Your task to perform on an android device: Open settings Image 0: 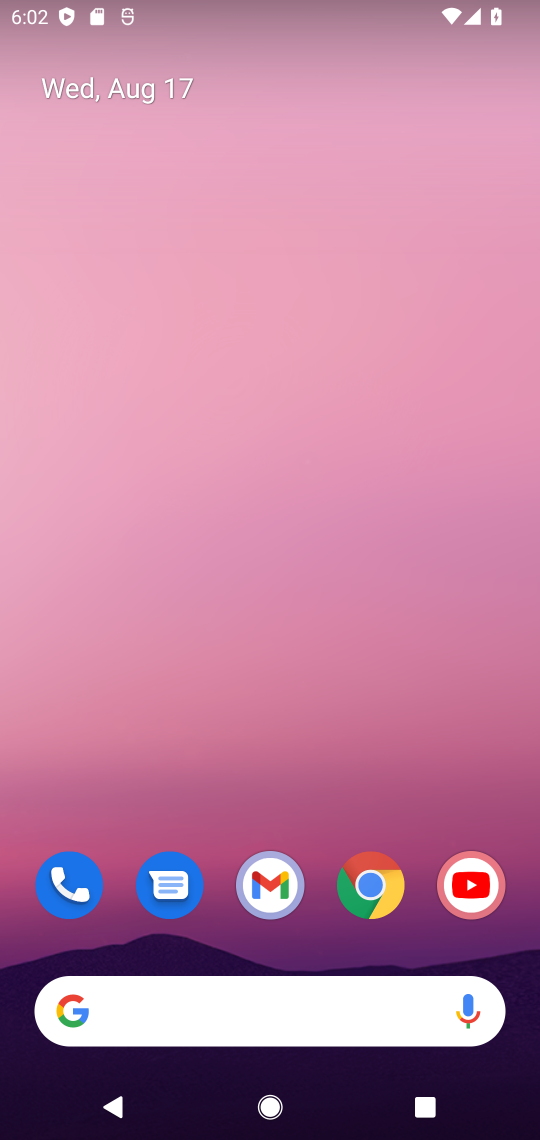
Step 0: drag from (405, 708) to (445, 0)
Your task to perform on an android device: Open settings Image 1: 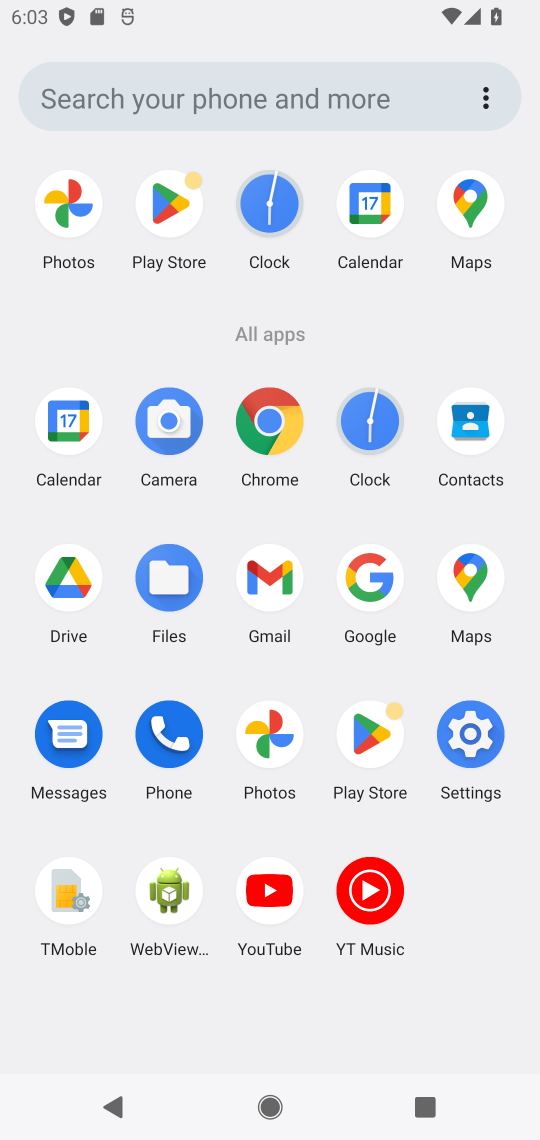
Step 1: click (472, 732)
Your task to perform on an android device: Open settings Image 2: 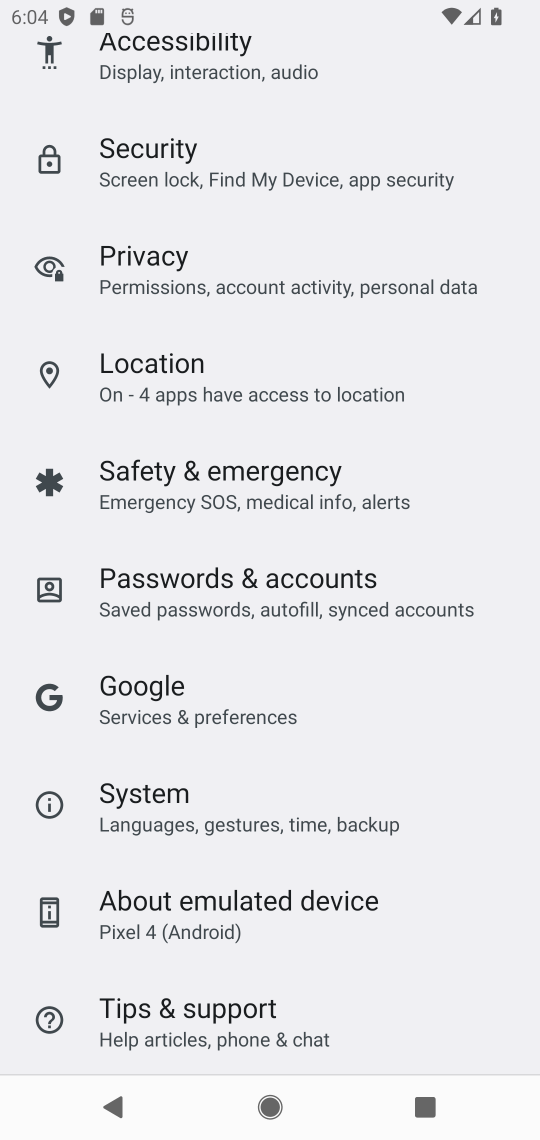
Step 2: task complete